Your task to perform on an android device: turn on data saver in the chrome app Image 0: 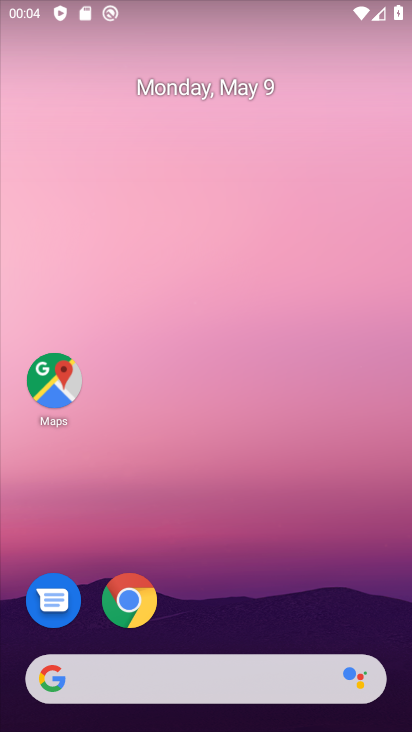
Step 0: click (150, 606)
Your task to perform on an android device: turn on data saver in the chrome app Image 1: 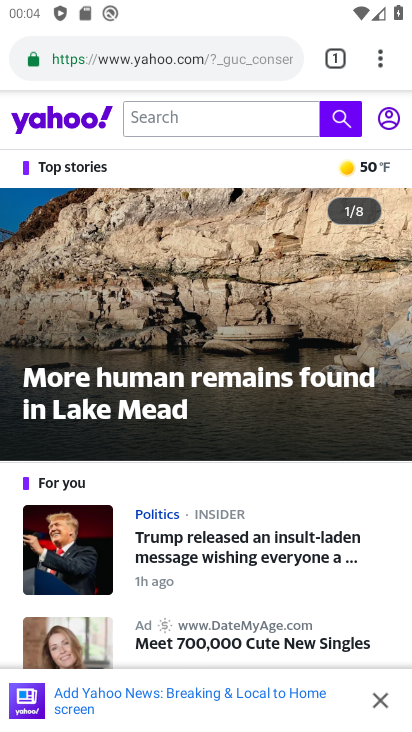
Step 1: drag from (382, 63) to (263, 634)
Your task to perform on an android device: turn on data saver in the chrome app Image 2: 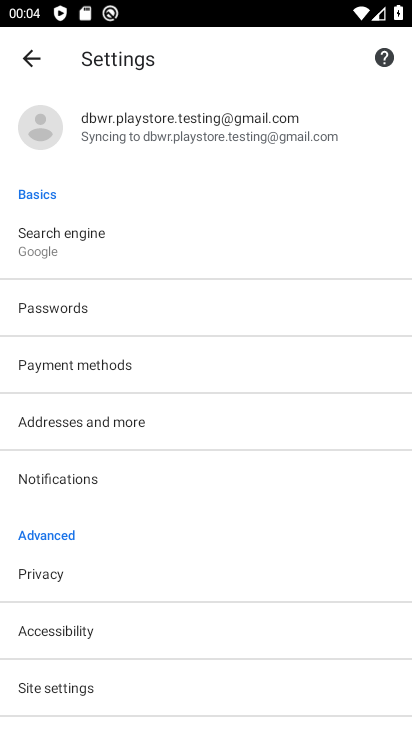
Step 2: drag from (263, 634) to (228, 283)
Your task to perform on an android device: turn on data saver in the chrome app Image 3: 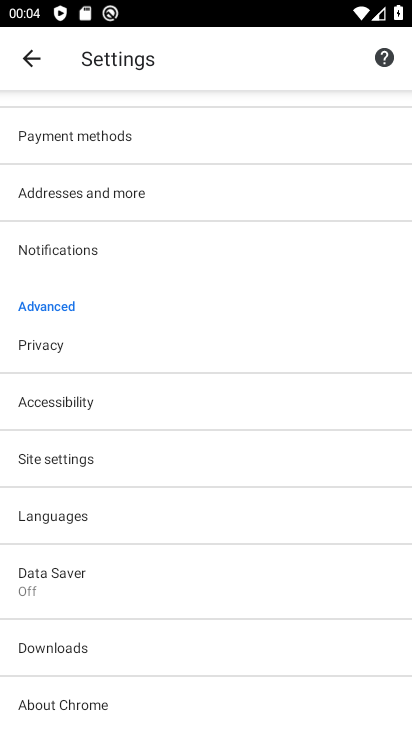
Step 3: click (247, 575)
Your task to perform on an android device: turn on data saver in the chrome app Image 4: 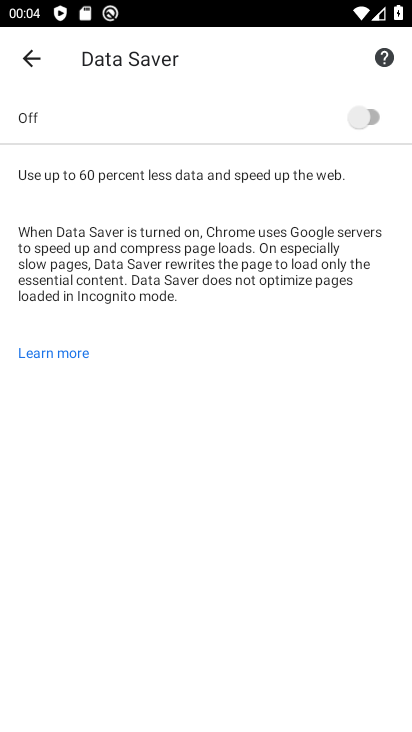
Step 4: click (372, 128)
Your task to perform on an android device: turn on data saver in the chrome app Image 5: 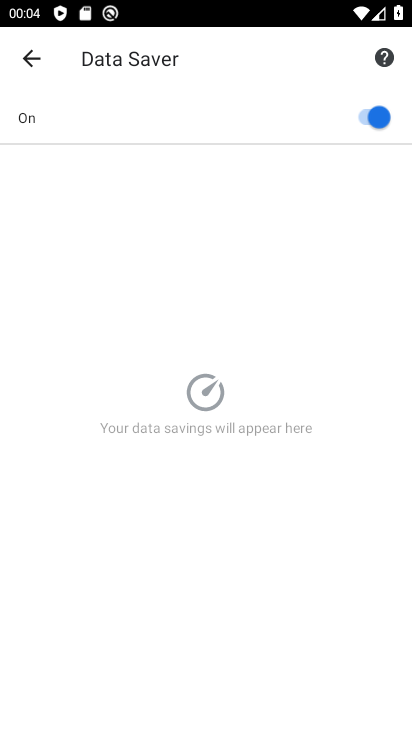
Step 5: task complete